Your task to perform on an android device: allow cookies in the chrome app Image 0: 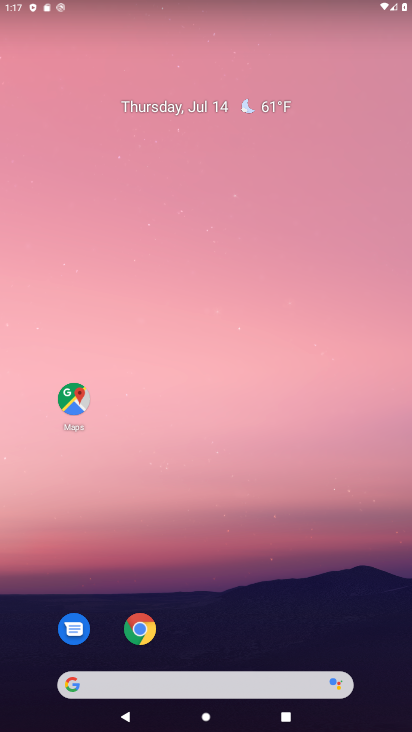
Step 0: click (237, 115)
Your task to perform on an android device: allow cookies in the chrome app Image 1: 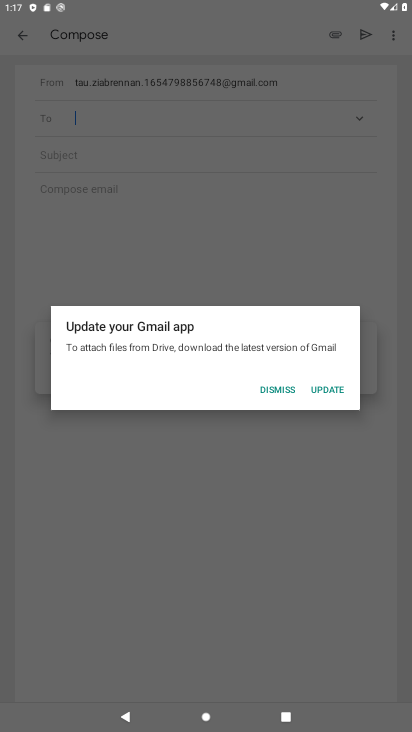
Step 1: drag from (185, 492) to (228, 252)
Your task to perform on an android device: allow cookies in the chrome app Image 2: 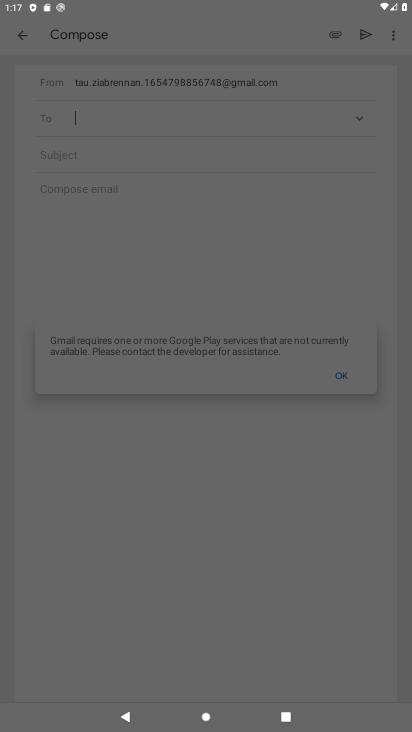
Step 2: drag from (263, 560) to (270, 194)
Your task to perform on an android device: allow cookies in the chrome app Image 3: 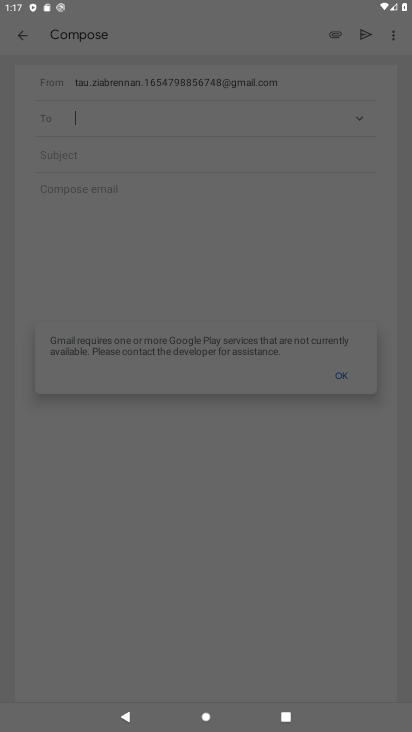
Step 3: drag from (252, 469) to (242, 263)
Your task to perform on an android device: allow cookies in the chrome app Image 4: 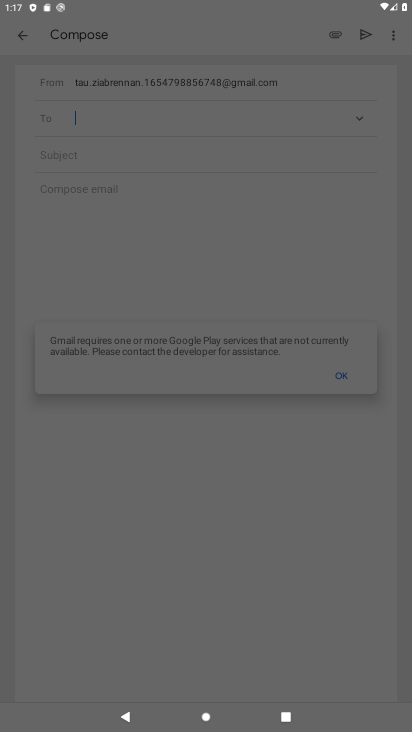
Step 4: drag from (181, 145) to (256, 544)
Your task to perform on an android device: allow cookies in the chrome app Image 5: 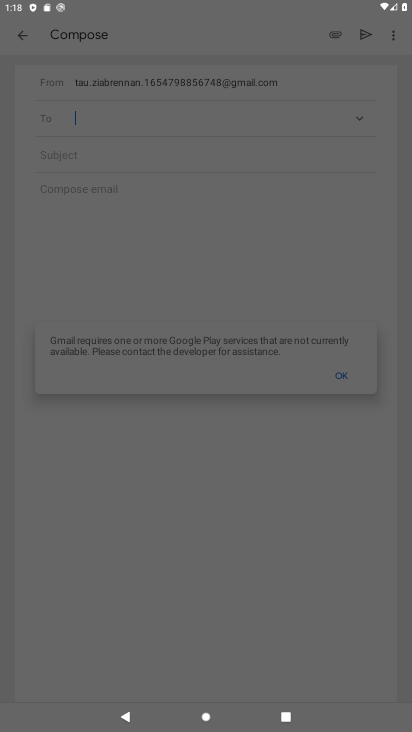
Step 5: press back button
Your task to perform on an android device: allow cookies in the chrome app Image 6: 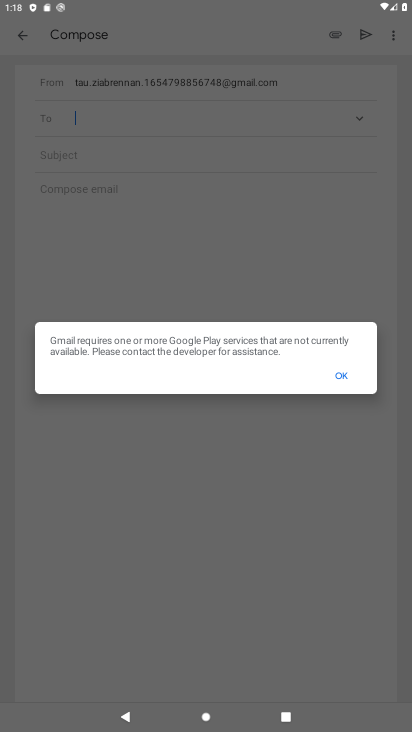
Step 6: press back button
Your task to perform on an android device: allow cookies in the chrome app Image 7: 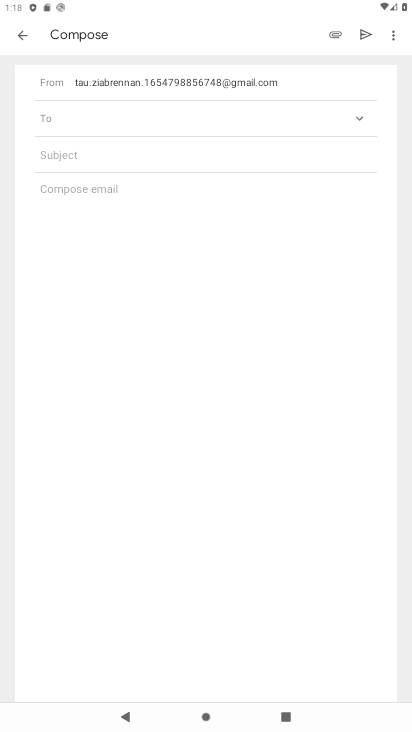
Step 7: click (327, 384)
Your task to perform on an android device: allow cookies in the chrome app Image 8: 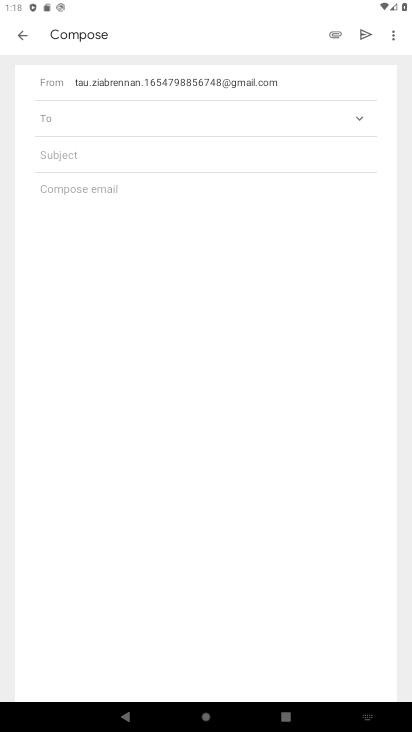
Step 8: press home button
Your task to perform on an android device: allow cookies in the chrome app Image 9: 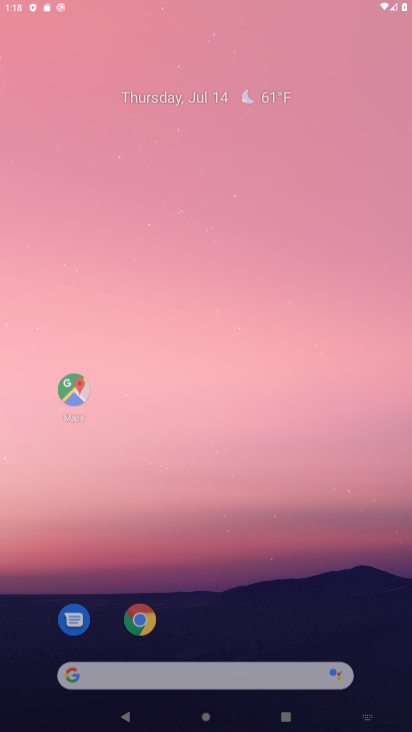
Step 9: drag from (180, 541) to (311, 18)
Your task to perform on an android device: allow cookies in the chrome app Image 10: 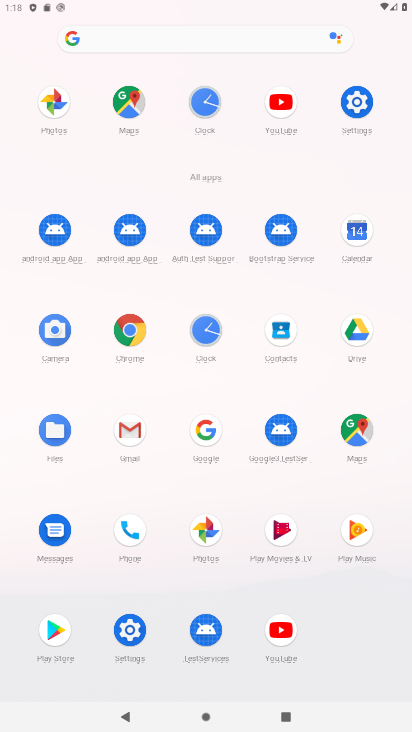
Step 10: click (123, 344)
Your task to perform on an android device: allow cookies in the chrome app Image 11: 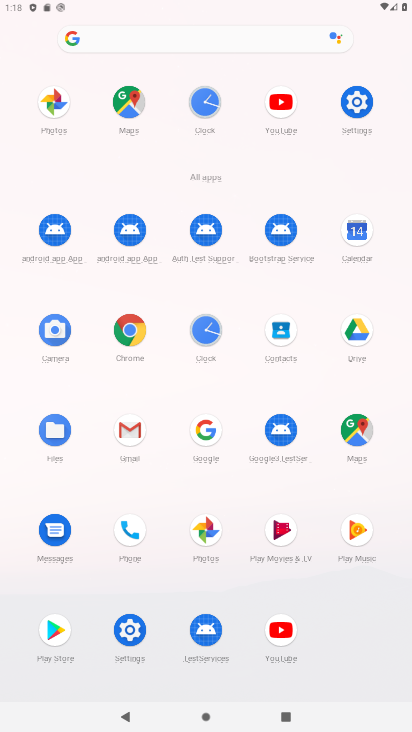
Step 11: click (225, 37)
Your task to perform on an android device: allow cookies in the chrome app Image 12: 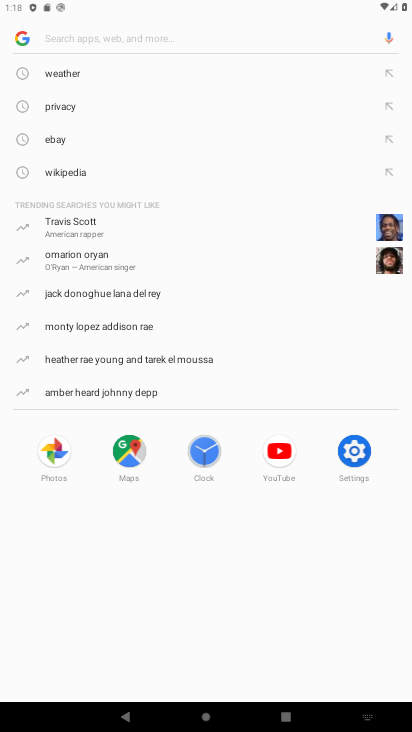
Step 12: press back button
Your task to perform on an android device: allow cookies in the chrome app Image 13: 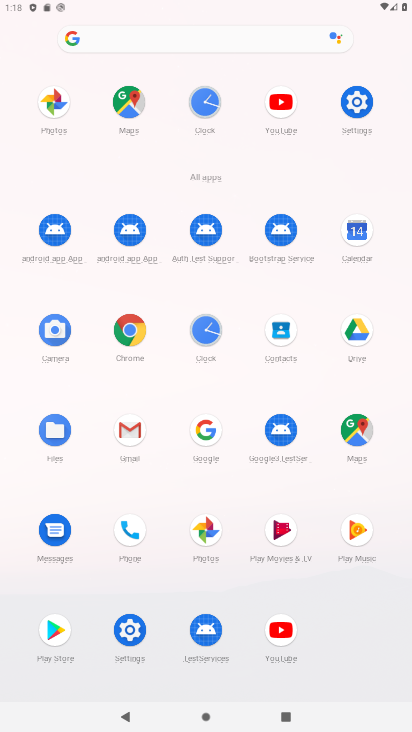
Step 13: click (120, 330)
Your task to perform on an android device: allow cookies in the chrome app Image 14: 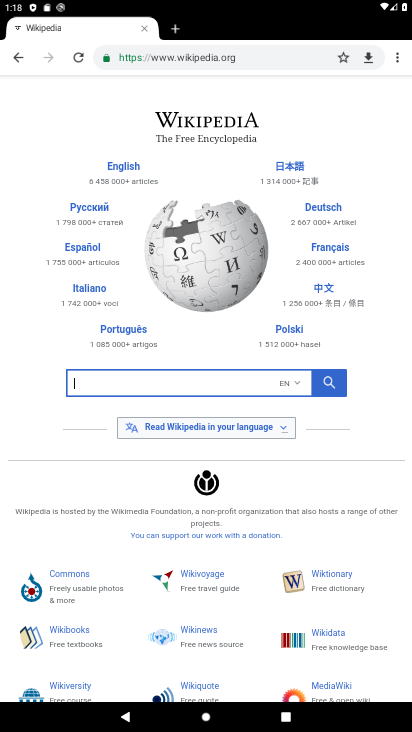
Step 14: drag from (211, 317) to (231, 475)
Your task to perform on an android device: allow cookies in the chrome app Image 15: 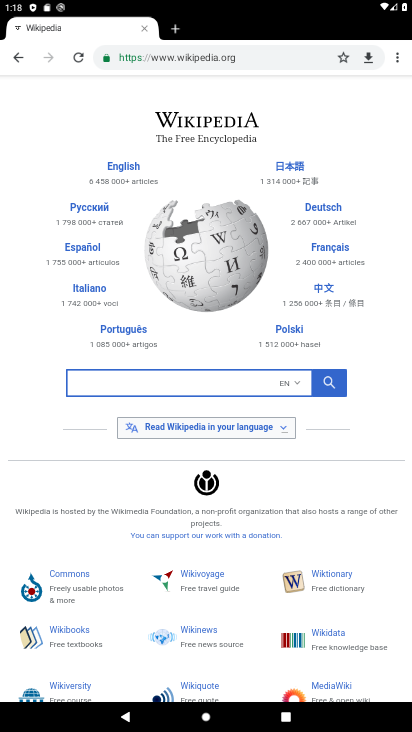
Step 15: drag from (210, 338) to (239, 182)
Your task to perform on an android device: allow cookies in the chrome app Image 16: 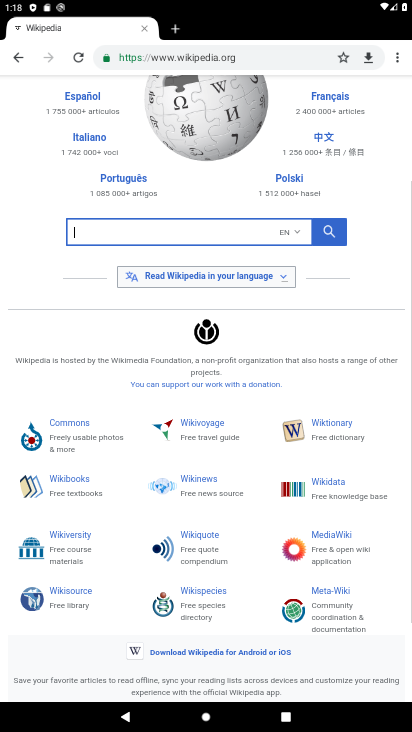
Step 16: drag from (234, 175) to (214, 296)
Your task to perform on an android device: allow cookies in the chrome app Image 17: 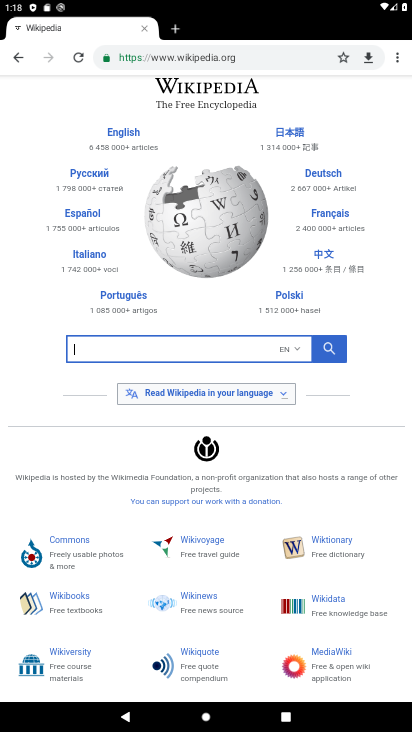
Step 17: drag from (184, 200) to (232, 389)
Your task to perform on an android device: allow cookies in the chrome app Image 18: 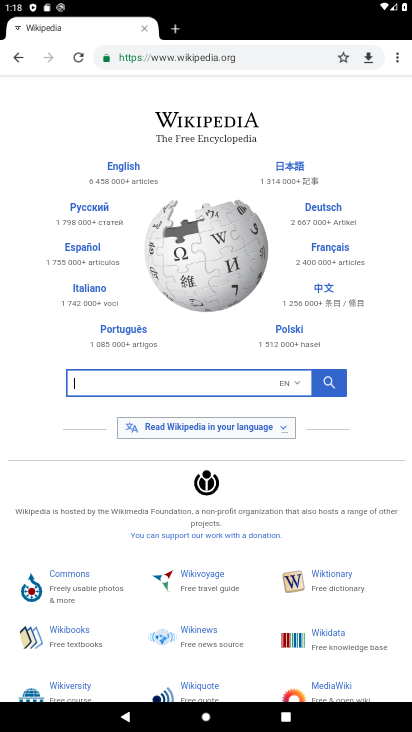
Step 18: drag from (398, 58) to (315, 209)
Your task to perform on an android device: allow cookies in the chrome app Image 19: 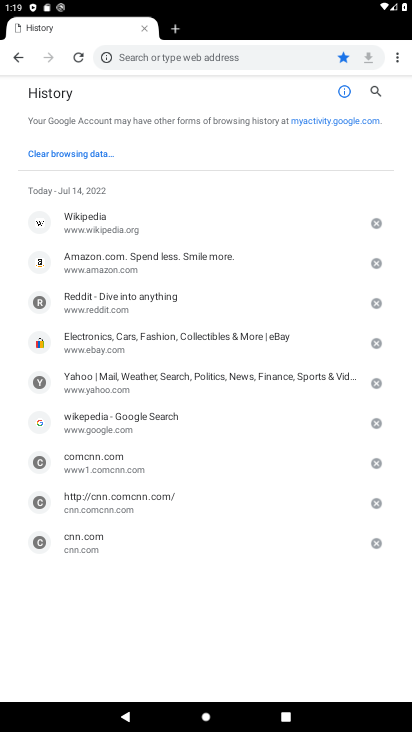
Step 19: drag from (388, 60) to (304, 306)
Your task to perform on an android device: allow cookies in the chrome app Image 20: 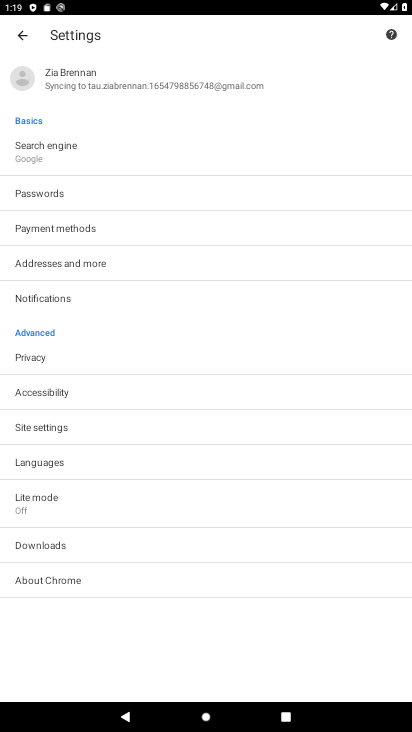
Step 20: drag from (158, 529) to (196, 212)
Your task to perform on an android device: allow cookies in the chrome app Image 21: 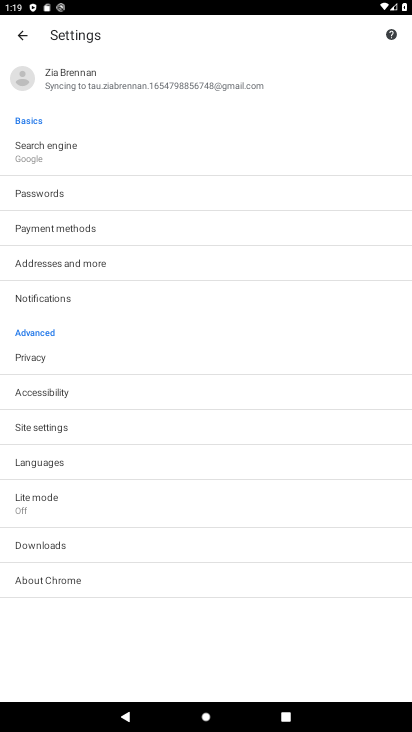
Step 21: drag from (203, 559) to (191, 304)
Your task to perform on an android device: allow cookies in the chrome app Image 22: 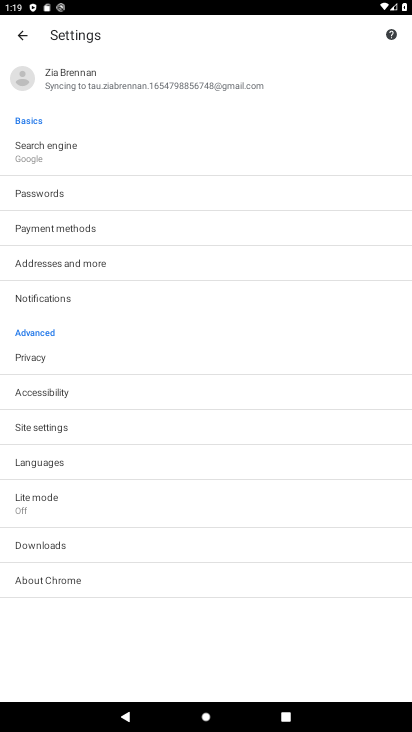
Step 22: click (68, 419)
Your task to perform on an android device: allow cookies in the chrome app Image 23: 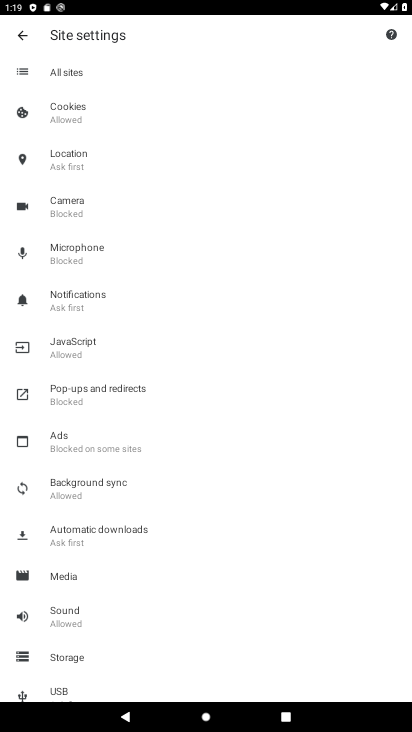
Step 23: click (136, 112)
Your task to perform on an android device: allow cookies in the chrome app Image 24: 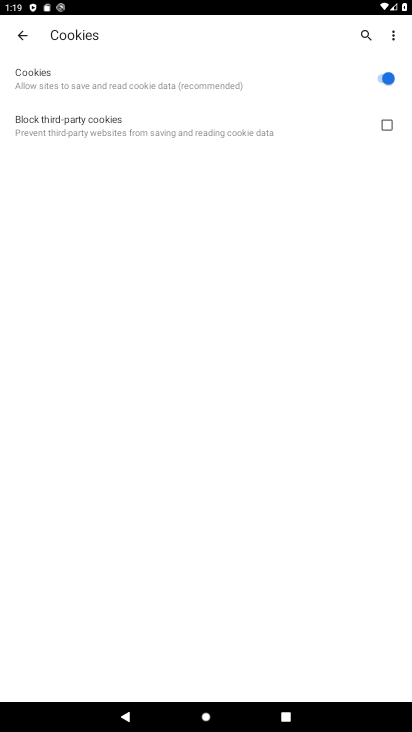
Step 24: task complete